Your task to perform on an android device: show emergency info Image 0: 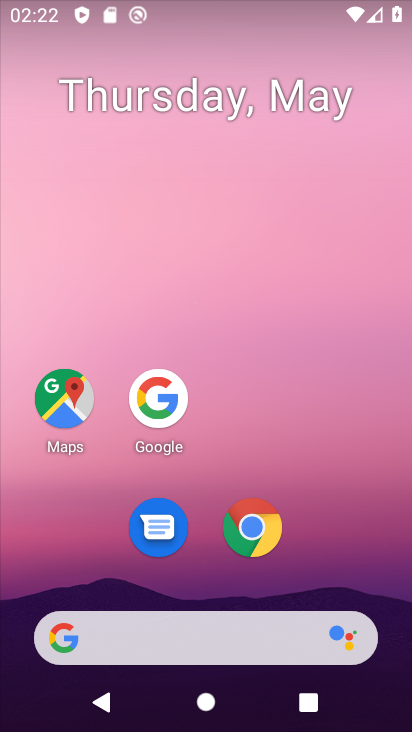
Step 0: click (247, 98)
Your task to perform on an android device: show emergency info Image 1: 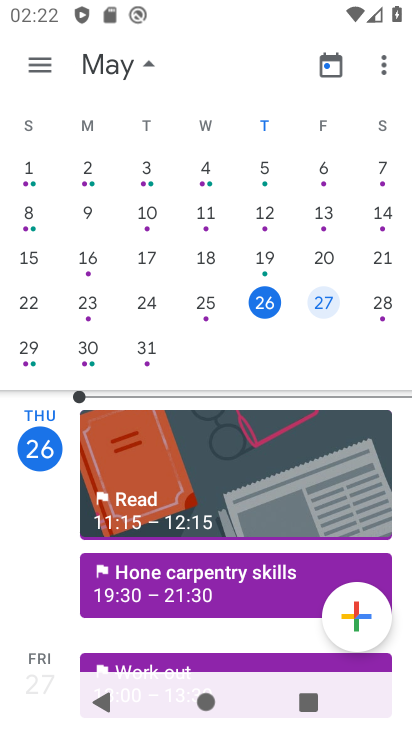
Step 1: press home button
Your task to perform on an android device: show emergency info Image 2: 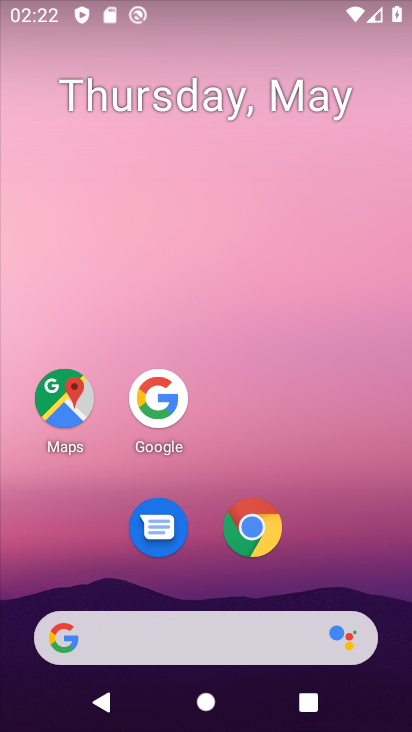
Step 2: drag from (198, 566) to (274, 150)
Your task to perform on an android device: show emergency info Image 3: 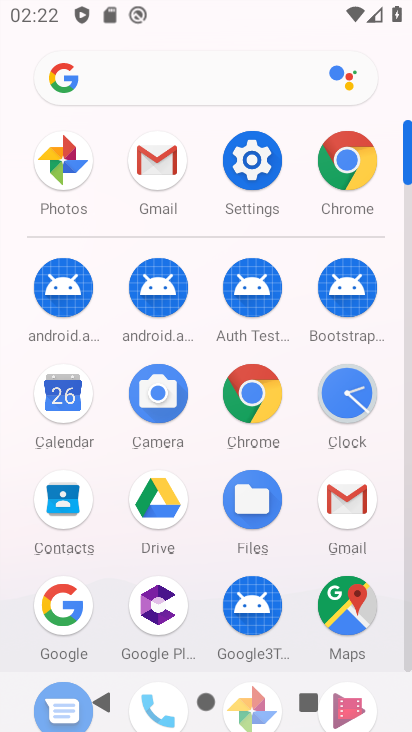
Step 3: click (243, 153)
Your task to perform on an android device: show emergency info Image 4: 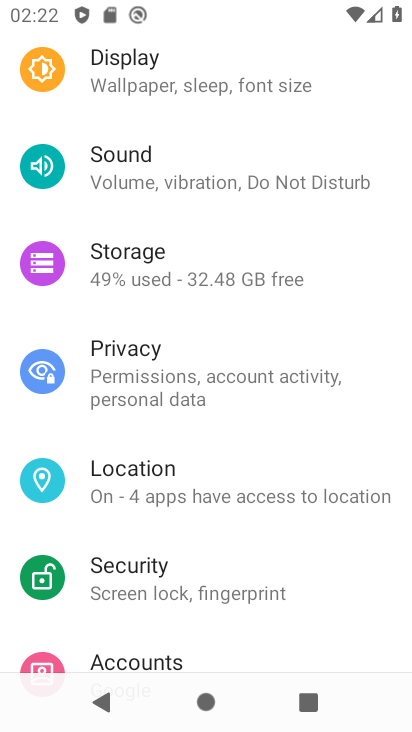
Step 4: drag from (206, 541) to (303, 76)
Your task to perform on an android device: show emergency info Image 5: 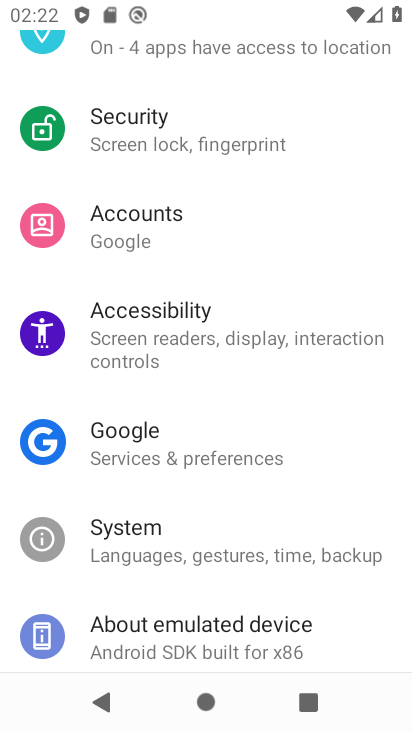
Step 5: click (192, 641)
Your task to perform on an android device: show emergency info Image 6: 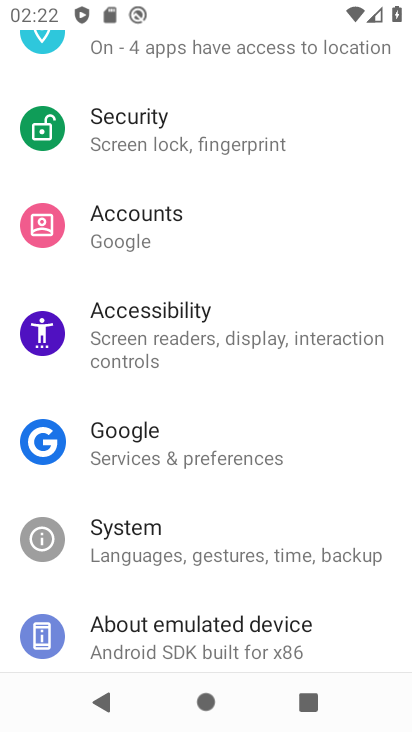
Step 6: click (192, 641)
Your task to perform on an android device: show emergency info Image 7: 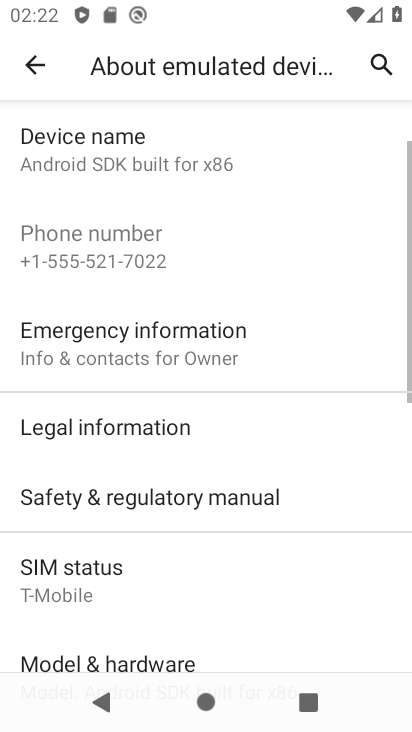
Step 7: click (168, 355)
Your task to perform on an android device: show emergency info Image 8: 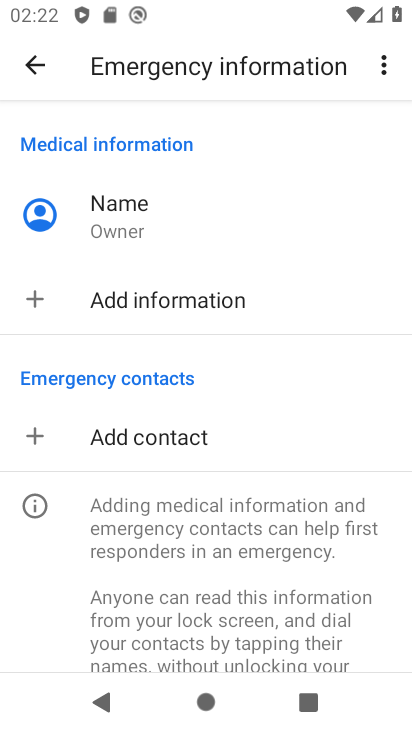
Step 8: task complete